Your task to perform on an android device: add a contact Image 0: 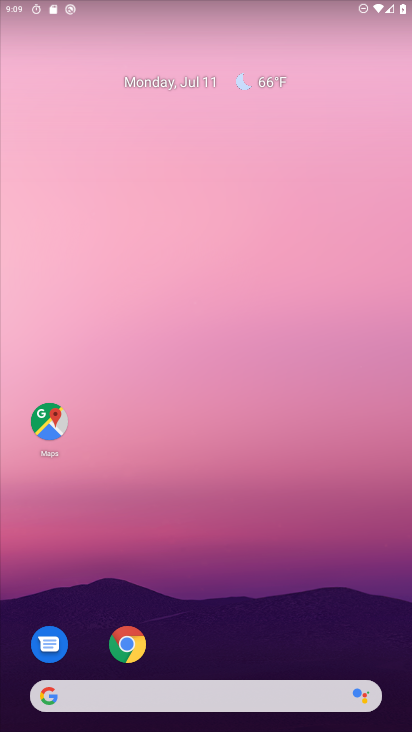
Step 0: drag from (312, 602) to (301, 68)
Your task to perform on an android device: add a contact Image 1: 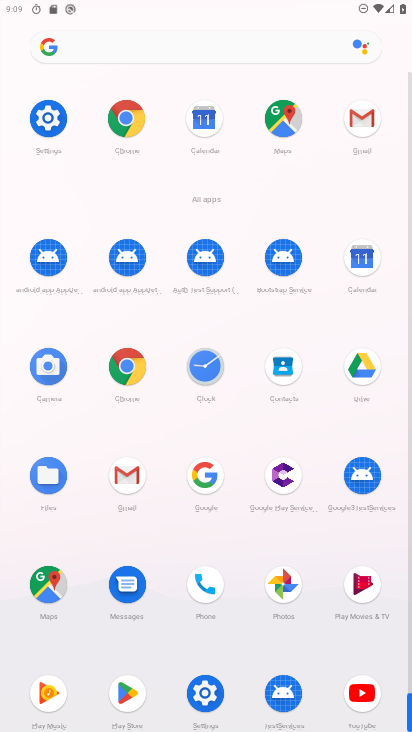
Step 1: click (291, 362)
Your task to perform on an android device: add a contact Image 2: 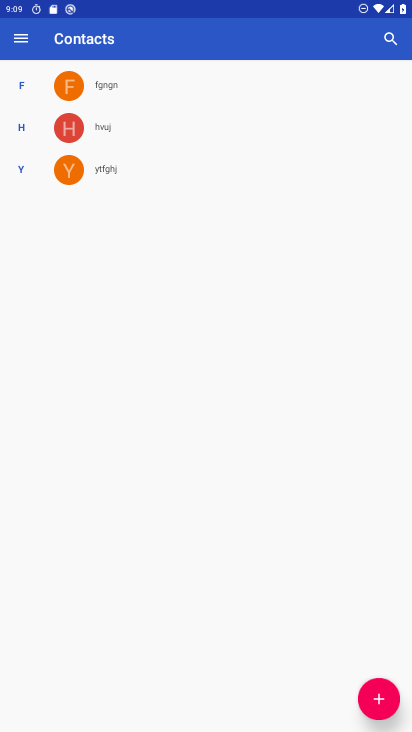
Step 2: click (374, 702)
Your task to perform on an android device: add a contact Image 3: 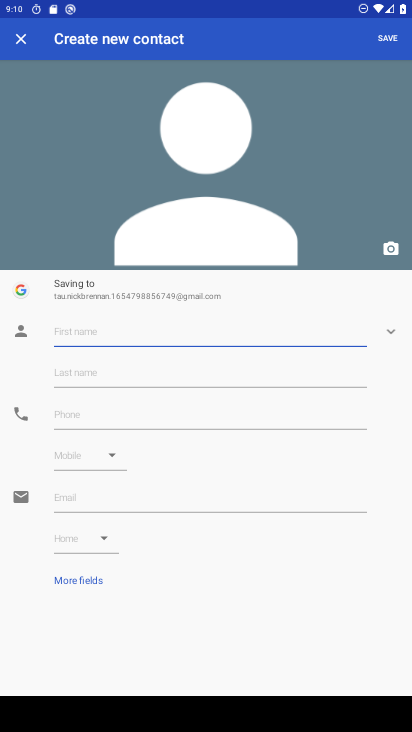
Step 3: type "contra"
Your task to perform on an android device: add a contact Image 4: 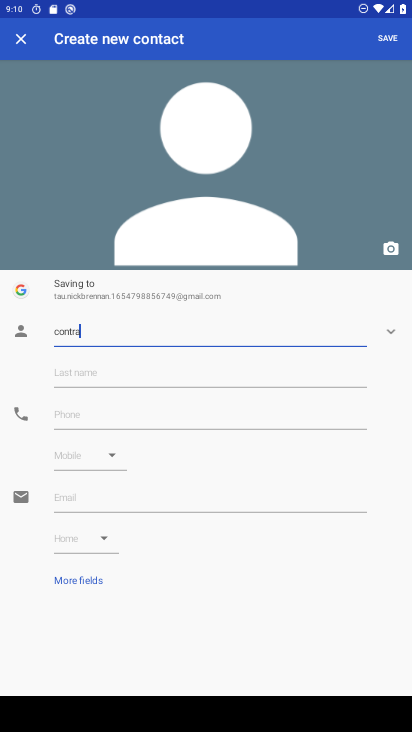
Step 4: click (391, 37)
Your task to perform on an android device: add a contact Image 5: 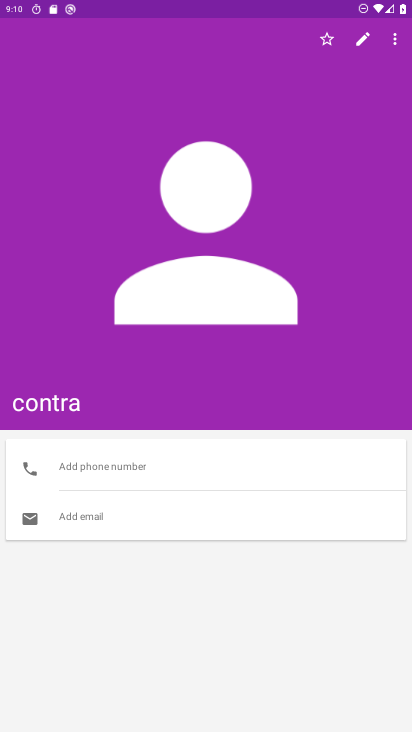
Step 5: task complete